Your task to perform on an android device: Turn off the flashlight Image 0: 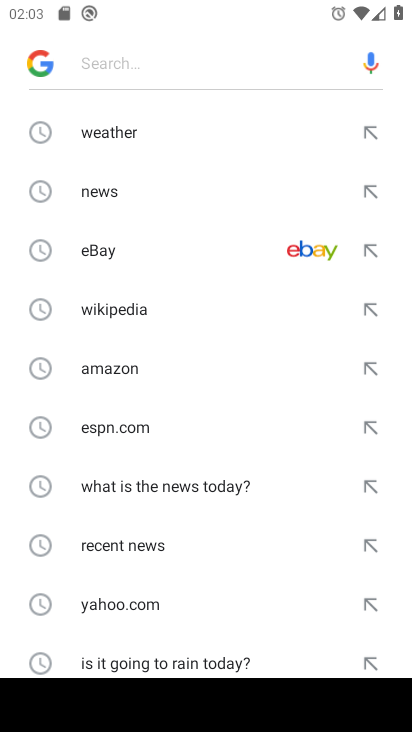
Step 0: press home button
Your task to perform on an android device: Turn off the flashlight Image 1: 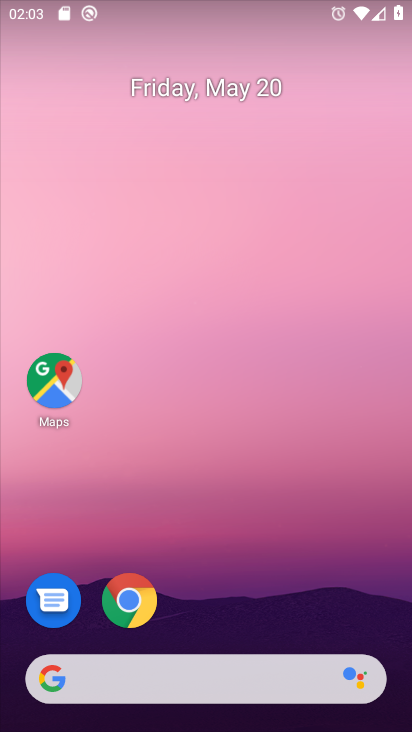
Step 1: drag from (242, 646) to (267, 71)
Your task to perform on an android device: Turn off the flashlight Image 2: 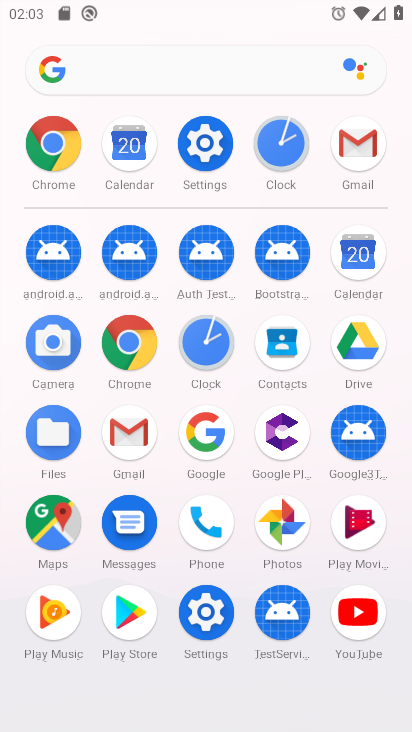
Step 2: click (215, 166)
Your task to perform on an android device: Turn off the flashlight Image 3: 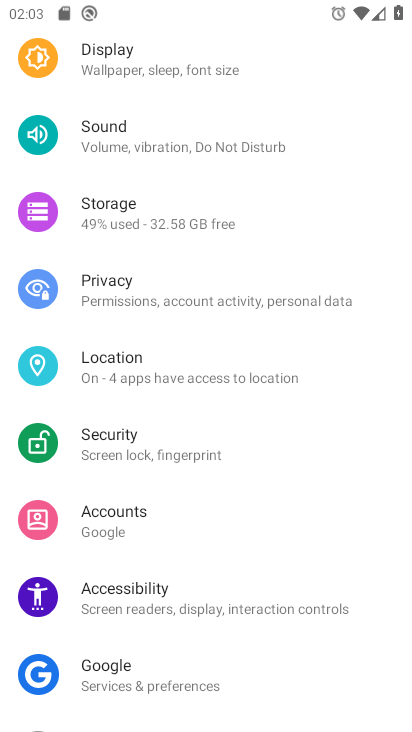
Step 3: drag from (270, 179) to (270, 544)
Your task to perform on an android device: Turn off the flashlight Image 4: 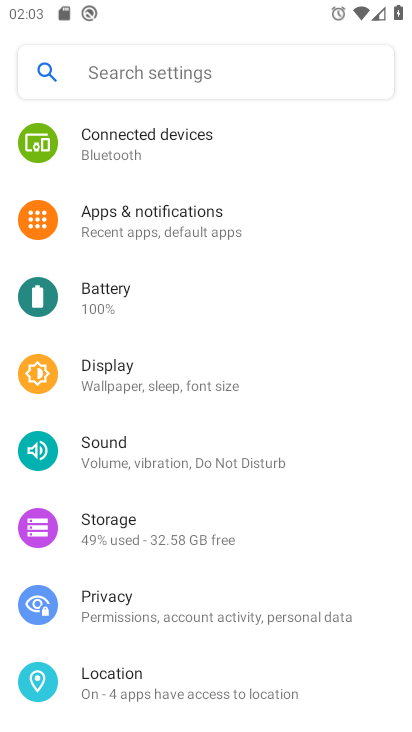
Step 4: click (187, 78)
Your task to perform on an android device: Turn off the flashlight Image 5: 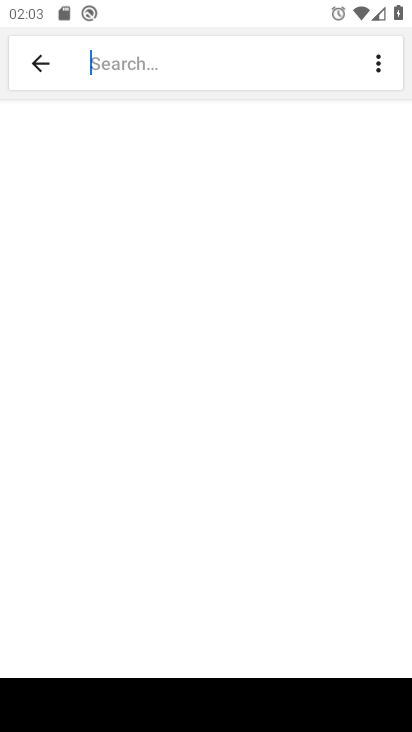
Step 5: type "flashlight"
Your task to perform on an android device: Turn off the flashlight Image 6: 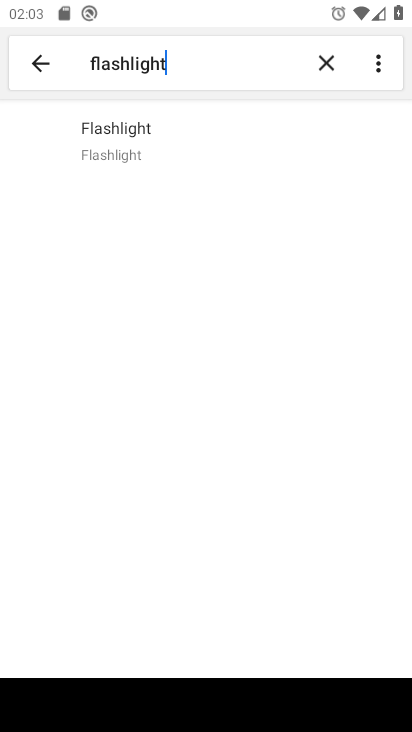
Step 6: click (106, 142)
Your task to perform on an android device: Turn off the flashlight Image 7: 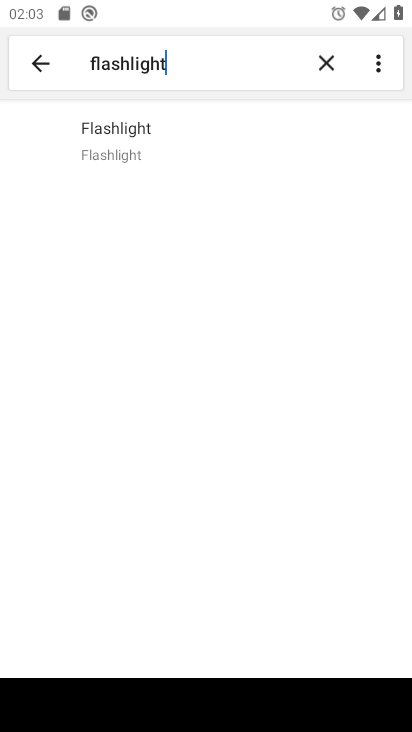
Step 7: click (77, 162)
Your task to perform on an android device: Turn off the flashlight Image 8: 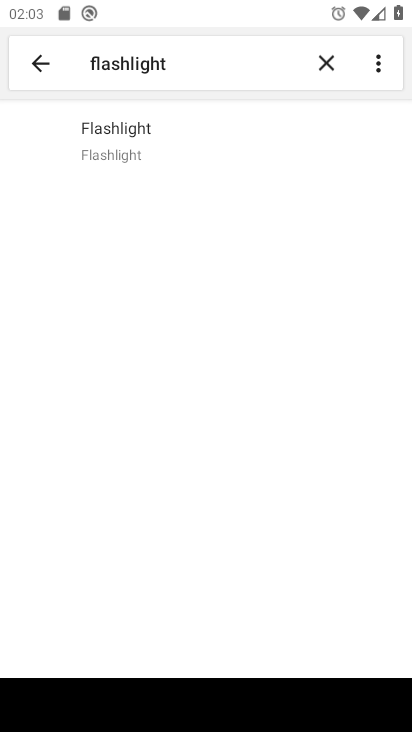
Step 8: task complete